Your task to perform on an android device: Is it going to rain this weekend? Image 0: 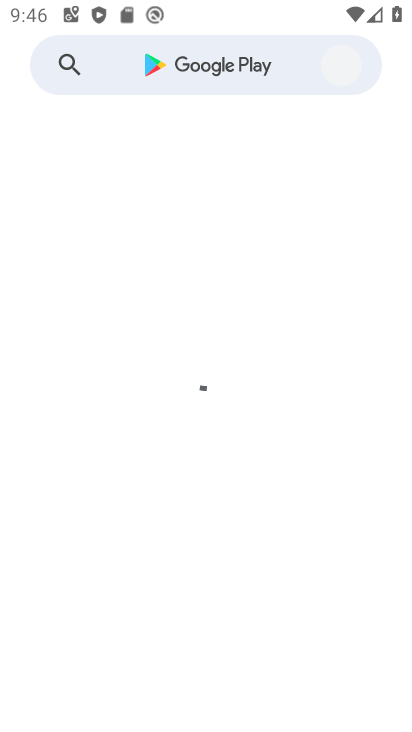
Step 0: drag from (335, 544) to (270, 201)
Your task to perform on an android device: Is it going to rain this weekend? Image 1: 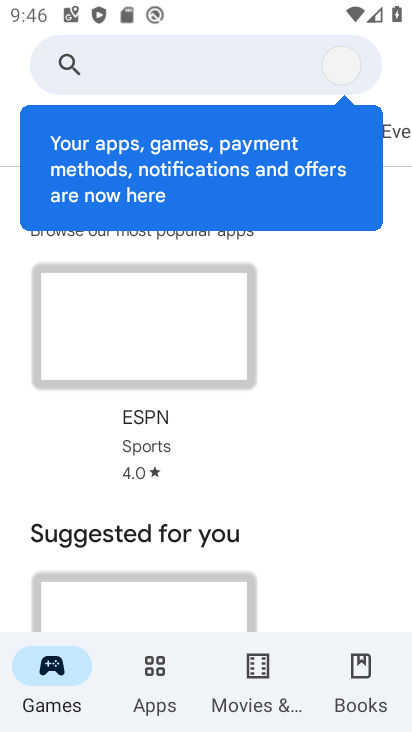
Step 1: press home button
Your task to perform on an android device: Is it going to rain this weekend? Image 2: 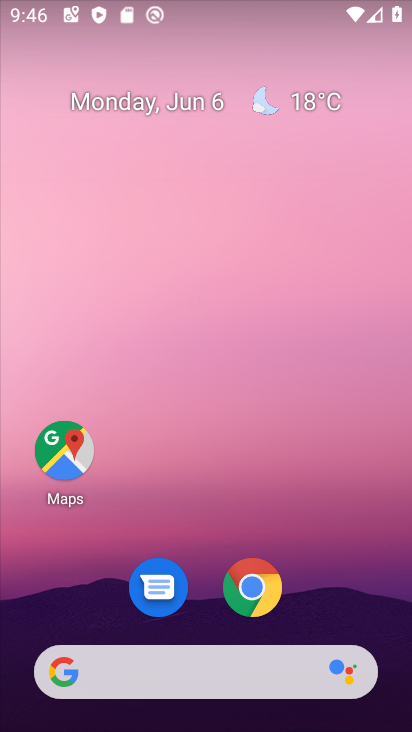
Step 2: click (208, 665)
Your task to perform on an android device: Is it going to rain this weekend? Image 3: 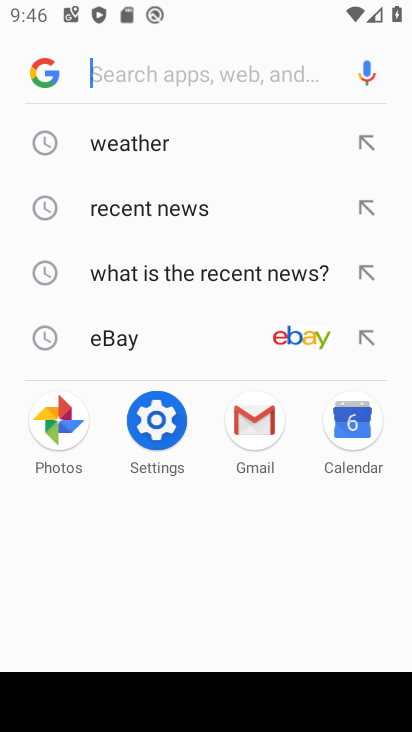
Step 3: click (150, 142)
Your task to perform on an android device: Is it going to rain this weekend? Image 4: 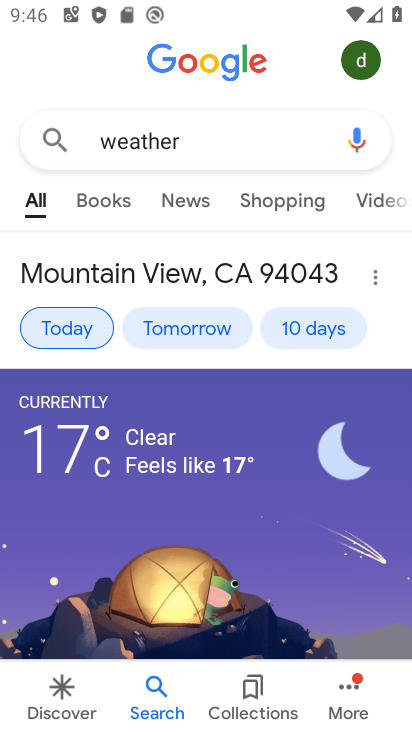
Step 4: click (304, 327)
Your task to perform on an android device: Is it going to rain this weekend? Image 5: 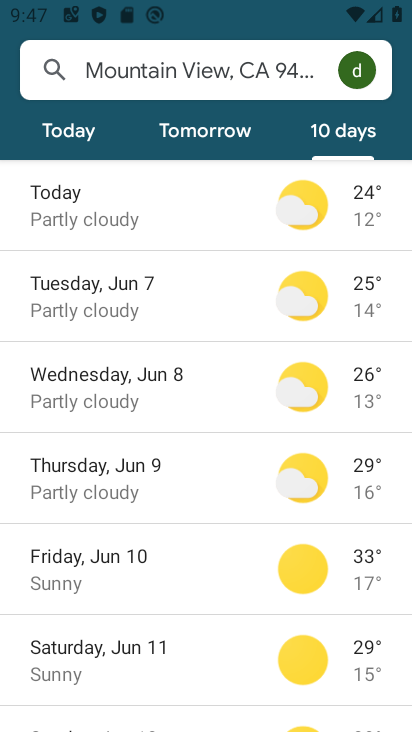
Step 5: task complete